Your task to perform on an android device: turn off location history Image 0: 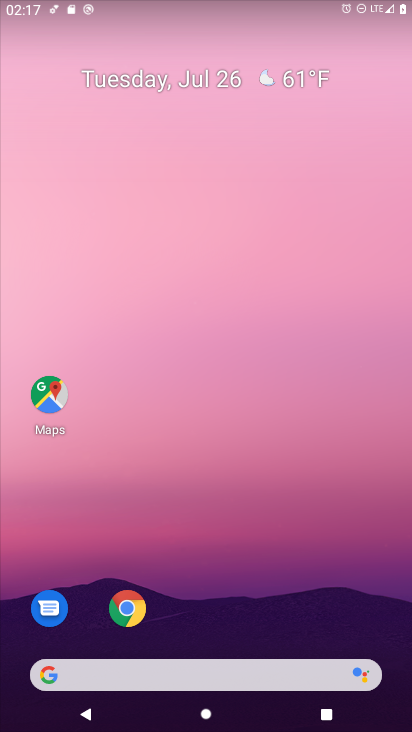
Step 0: press home button
Your task to perform on an android device: turn off location history Image 1: 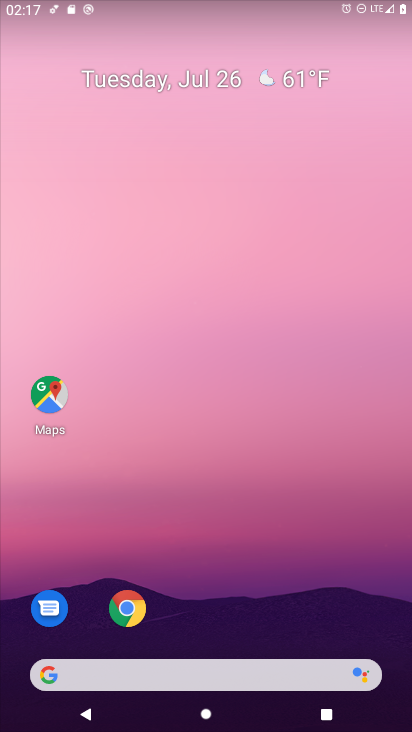
Step 1: drag from (64, 616) to (223, 149)
Your task to perform on an android device: turn off location history Image 2: 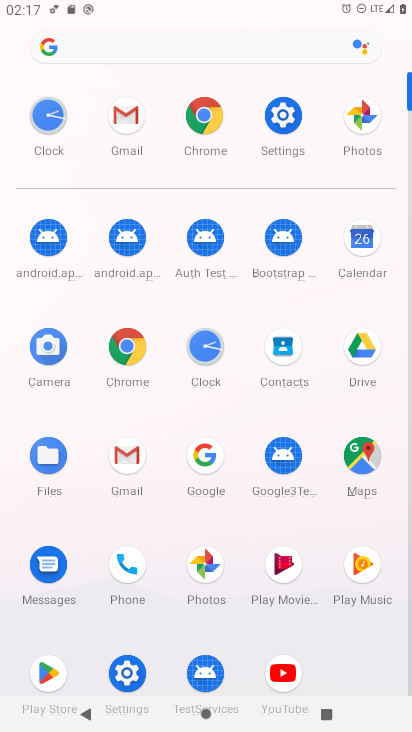
Step 2: click (284, 104)
Your task to perform on an android device: turn off location history Image 3: 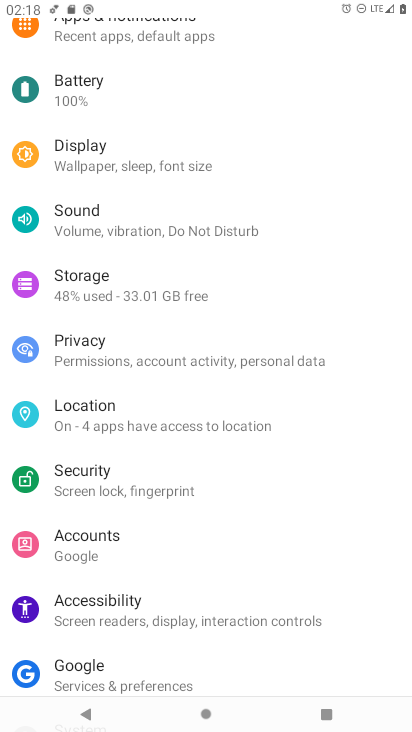
Step 3: click (114, 403)
Your task to perform on an android device: turn off location history Image 4: 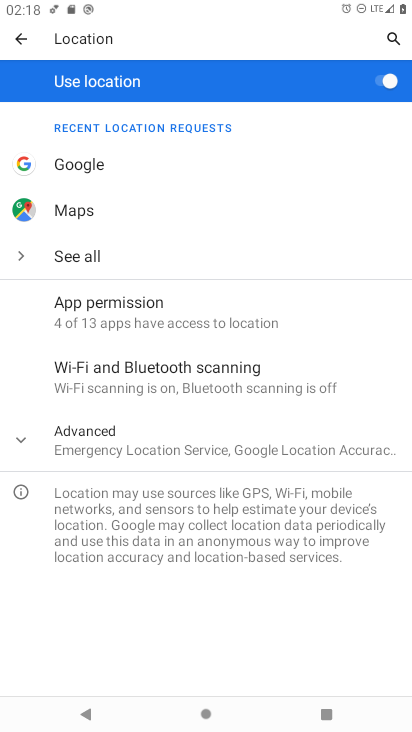
Step 4: click (112, 442)
Your task to perform on an android device: turn off location history Image 5: 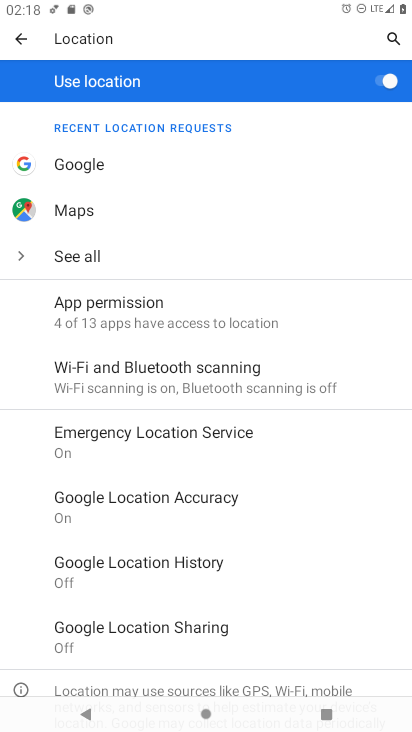
Step 5: click (127, 570)
Your task to perform on an android device: turn off location history Image 6: 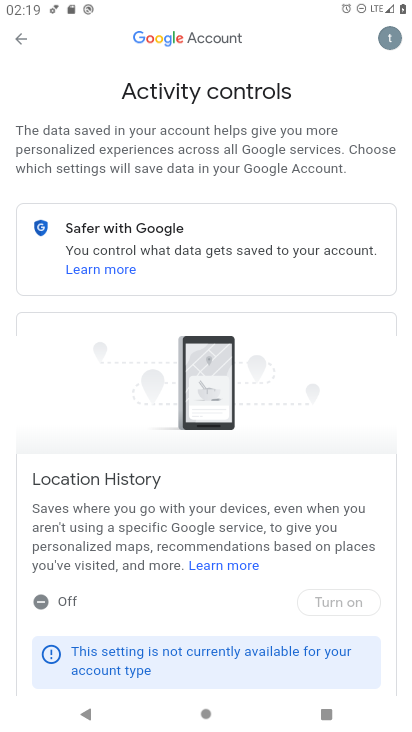
Step 6: drag from (2, 550) to (243, 145)
Your task to perform on an android device: turn off location history Image 7: 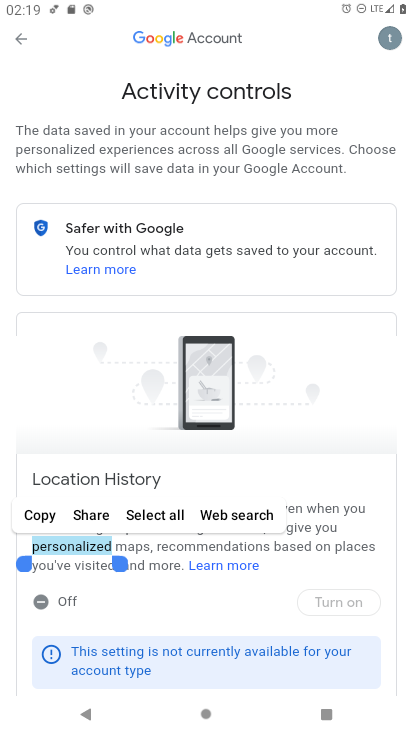
Step 7: click (241, 603)
Your task to perform on an android device: turn off location history Image 8: 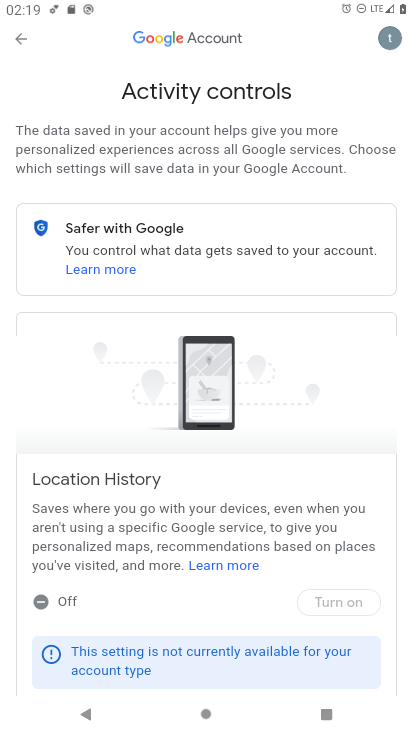
Step 8: task complete